Your task to perform on an android device: turn off notifications settings in the gmail app Image 0: 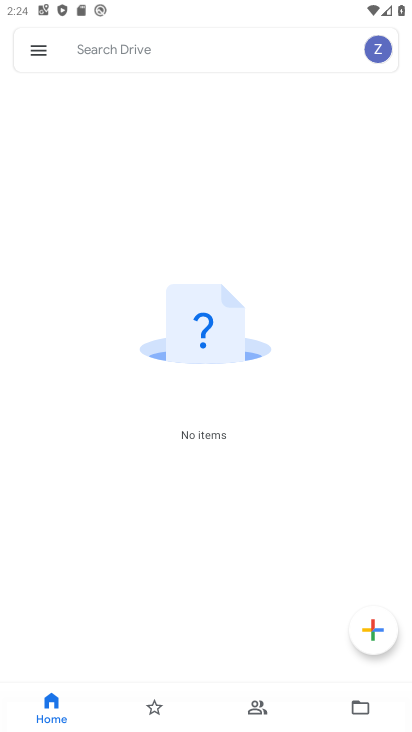
Step 0: press home button
Your task to perform on an android device: turn off notifications settings in the gmail app Image 1: 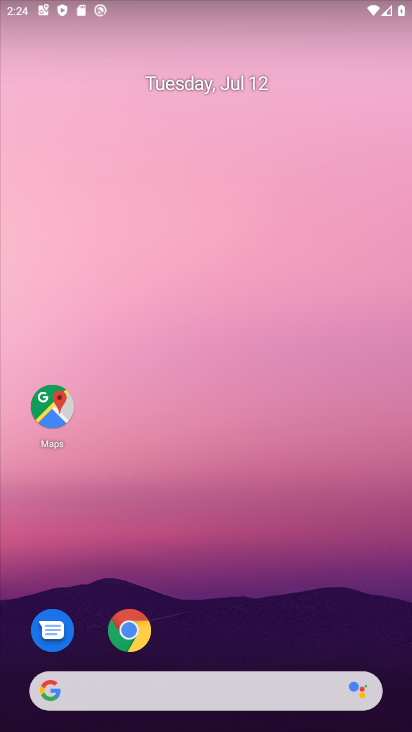
Step 1: drag from (380, 634) to (332, 226)
Your task to perform on an android device: turn off notifications settings in the gmail app Image 2: 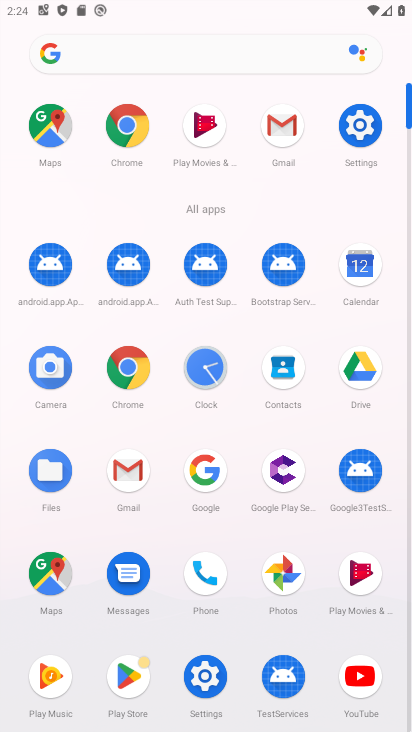
Step 2: click (128, 467)
Your task to perform on an android device: turn off notifications settings in the gmail app Image 3: 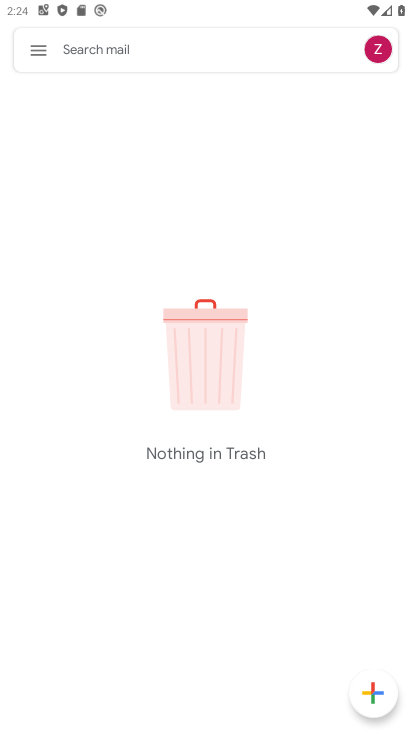
Step 3: click (38, 53)
Your task to perform on an android device: turn off notifications settings in the gmail app Image 4: 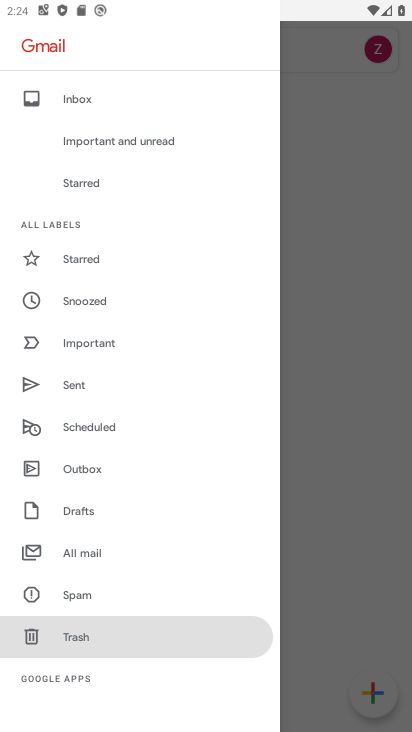
Step 4: drag from (212, 584) to (206, 300)
Your task to perform on an android device: turn off notifications settings in the gmail app Image 5: 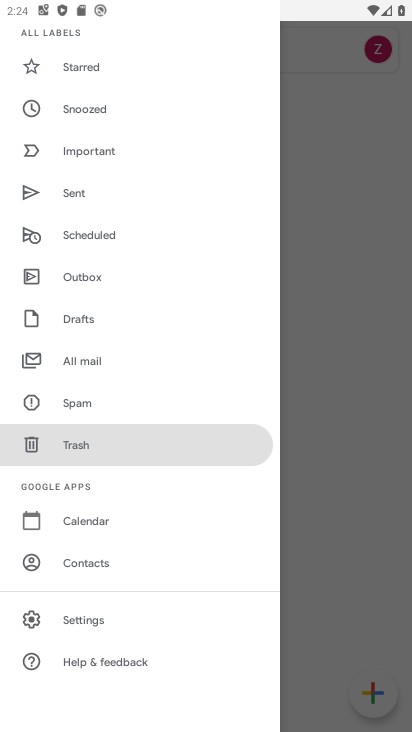
Step 5: click (83, 615)
Your task to perform on an android device: turn off notifications settings in the gmail app Image 6: 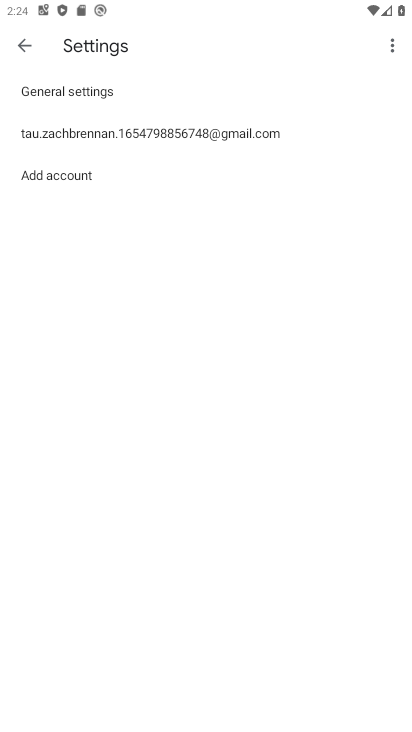
Step 6: click (105, 129)
Your task to perform on an android device: turn off notifications settings in the gmail app Image 7: 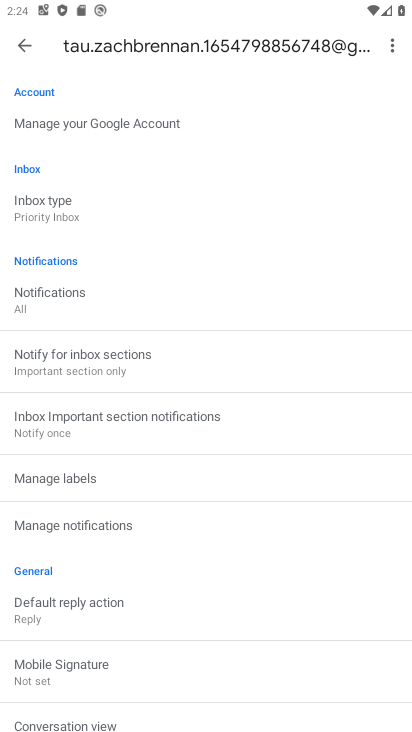
Step 7: click (94, 528)
Your task to perform on an android device: turn off notifications settings in the gmail app Image 8: 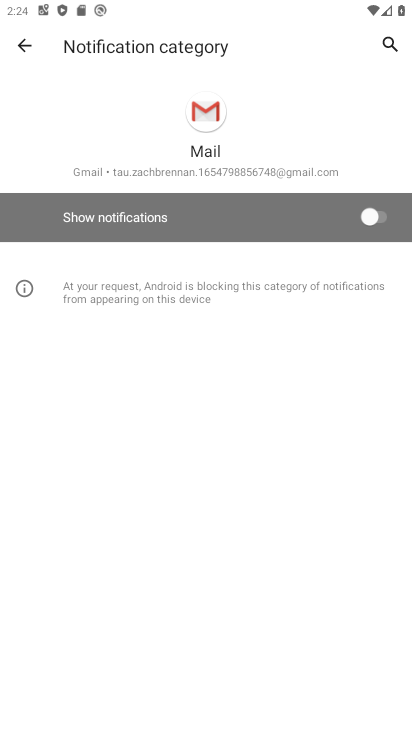
Step 8: task complete